Your task to perform on an android device: Open Maps and search for coffee Image 0: 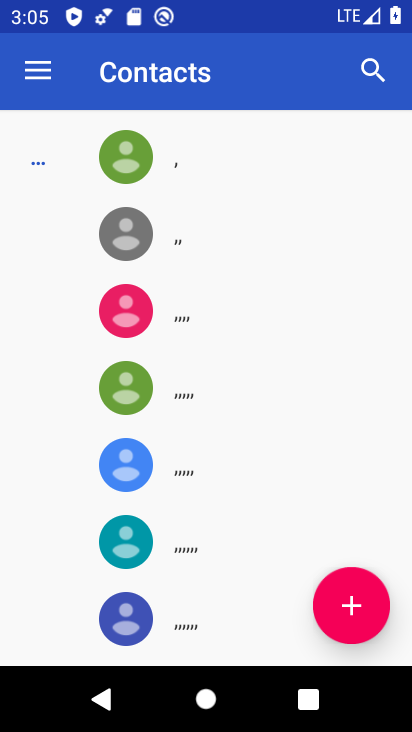
Step 0: drag from (310, 26) to (203, 607)
Your task to perform on an android device: Open Maps and search for coffee Image 1: 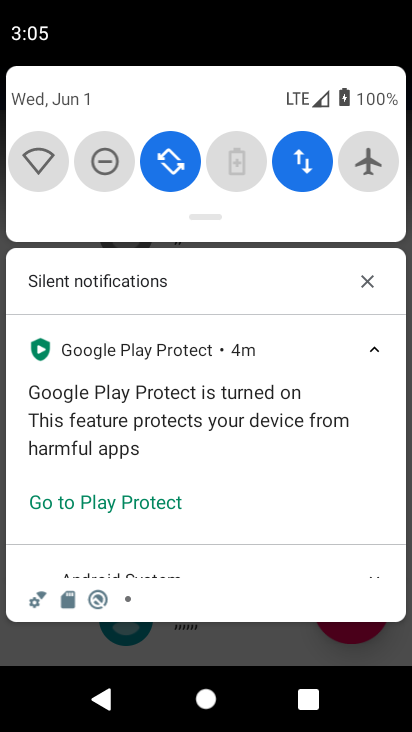
Step 1: press home button
Your task to perform on an android device: Open Maps and search for coffee Image 2: 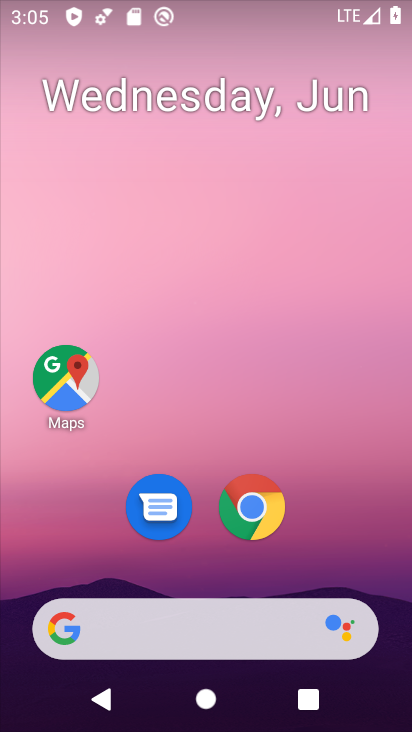
Step 2: click (51, 401)
Your task to perform on an android device: Open Maps and search for coffee Image 3: 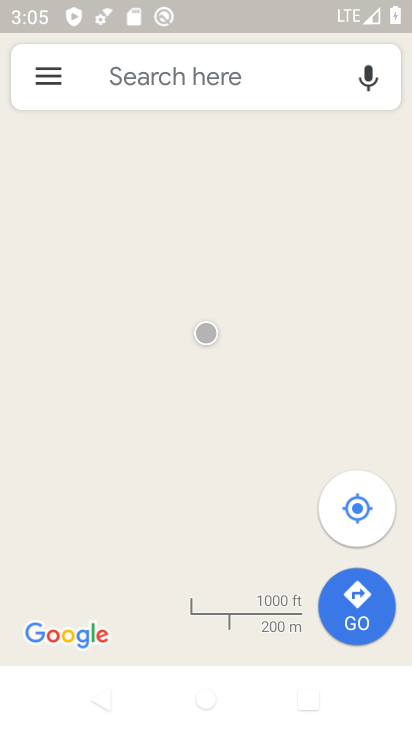
Step 3: click (221, 66)
Your task to perform on an android device: Open Maps and search for coffee Image 4: 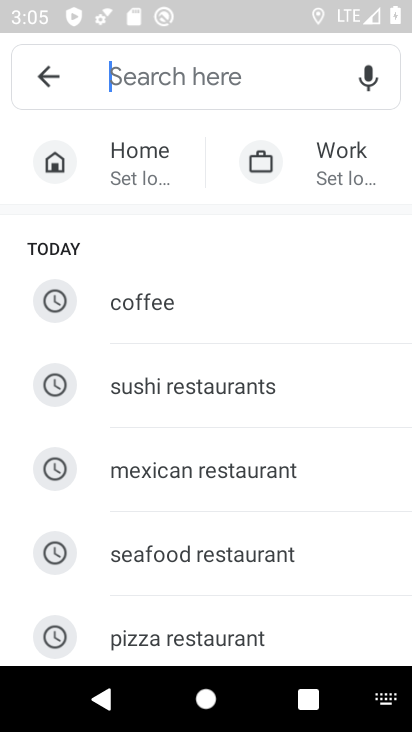
Step 4: type "coffee"
Your task to perform on an android device: Open Maps and search for coffee Image 5: 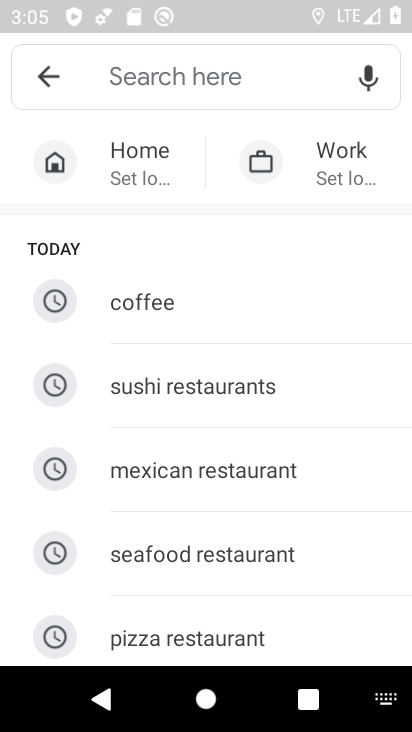
Step 5: click (187, 341)
Your task to perform on an android device: Open Maps and search for coffee Image 6: 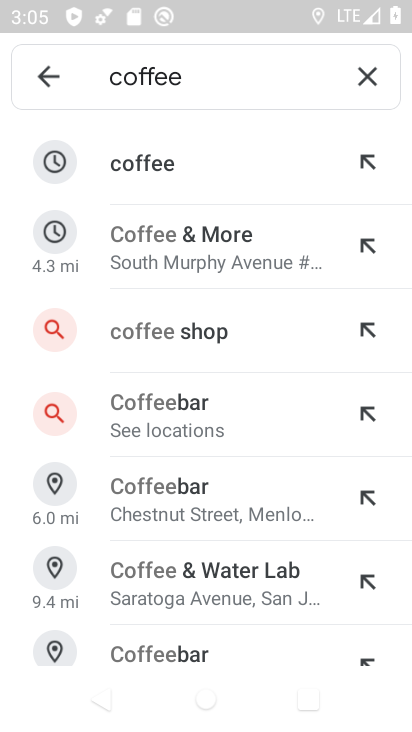
Step 6: click (139, 152)
Your task to perform on an android device: Open Maps and search for coffee Image 7: 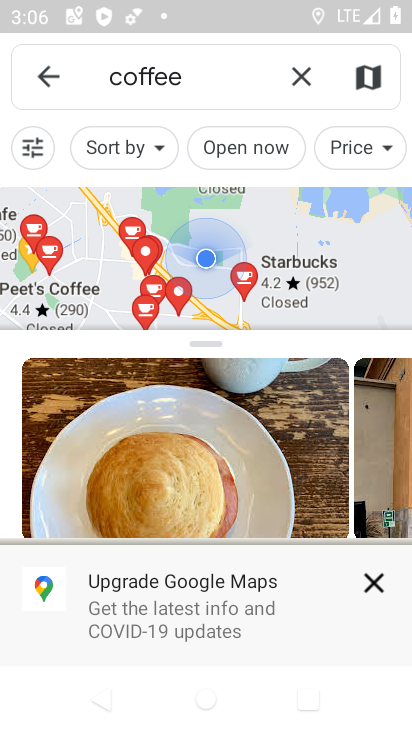
Step 7: task complete